Your task to perform on an android device: Toggle the flashlight Image 0: 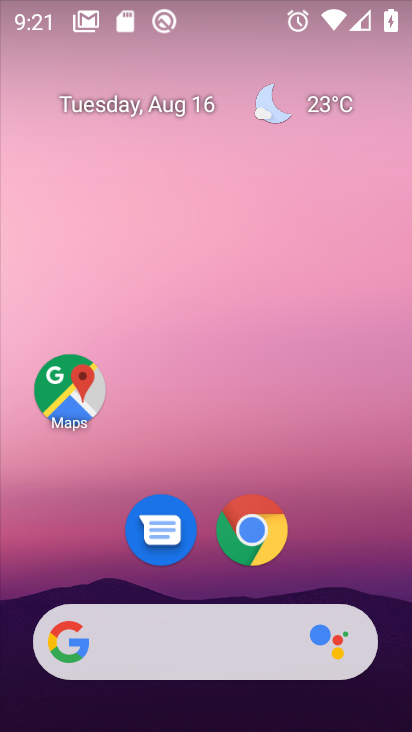
Step 0: drag from (345, 465) to (349, 124)
Your task to perform on an android device: Toggle the flashlight Image 1: 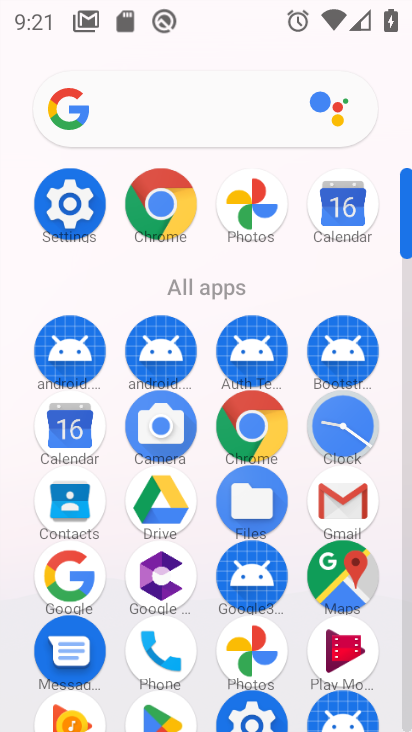
Step 1: click (66, 192)
Your task to perform on an android device: Toggle the flashlight Image 2: 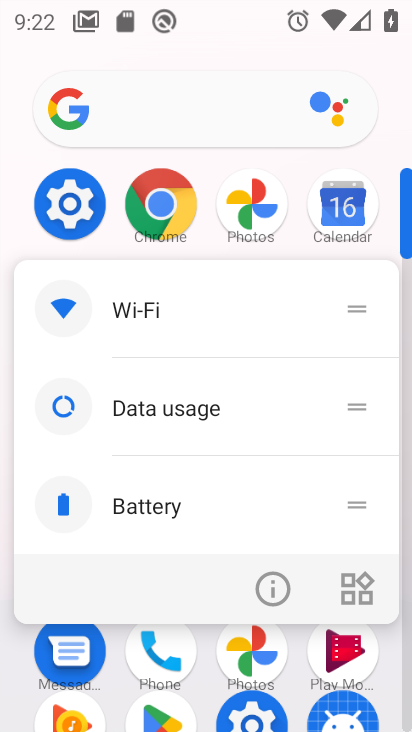
Step 2: click (257, 722)
Your task to perform on an android device: Toggle the flashlight Image 3: 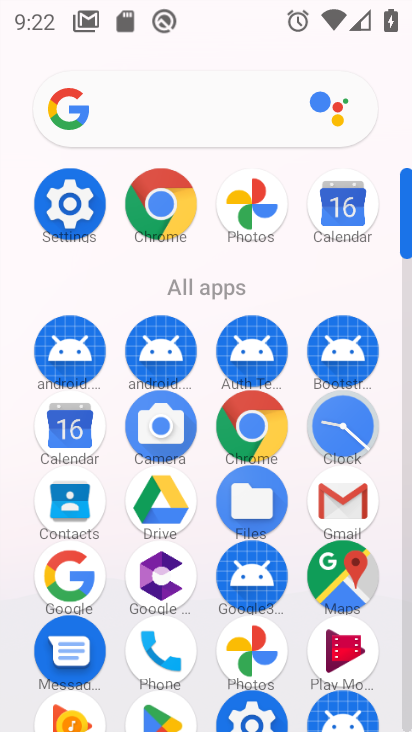
Step 3: click (257, 713)
Your task to perform on an android device: Toggle the flashlight Image 4: 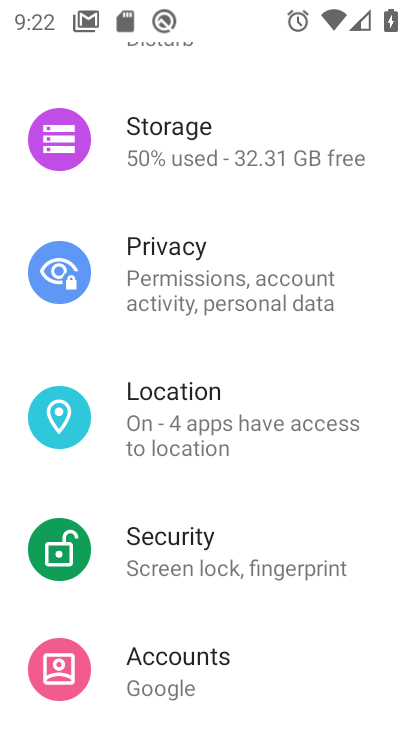
Step 4: drag from (256, 204) to (271, 635)
Your task to perform on an android device: Toggle the flashlight Image 5: 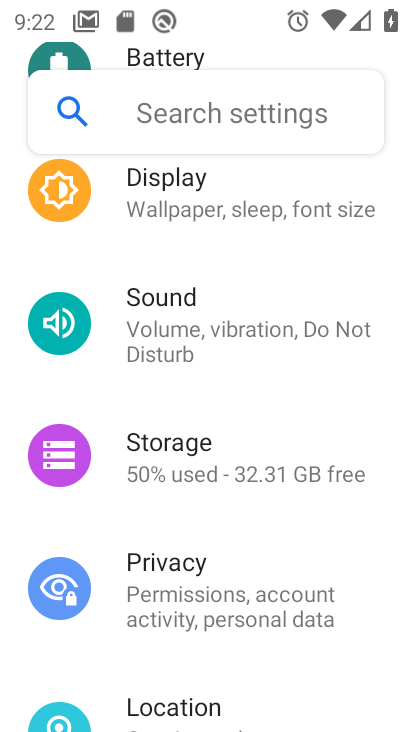
Step 5: click (226, 203)
Your task to perform on an android device: Toggle the flashlight Image 6: 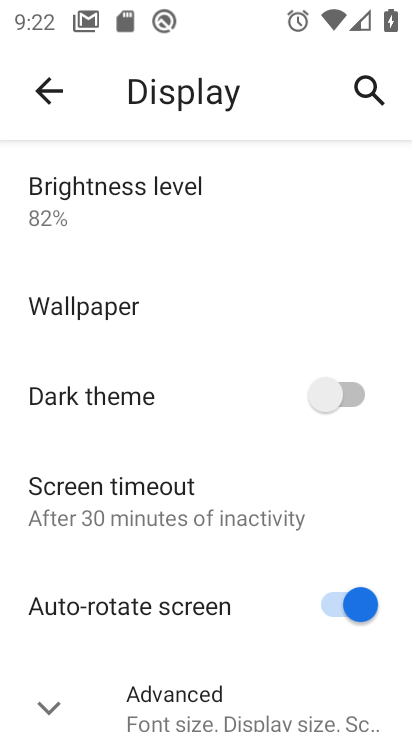
Step 6: task complete